Your task to perform on an android device: Do I have any events this weekend? Image 0: 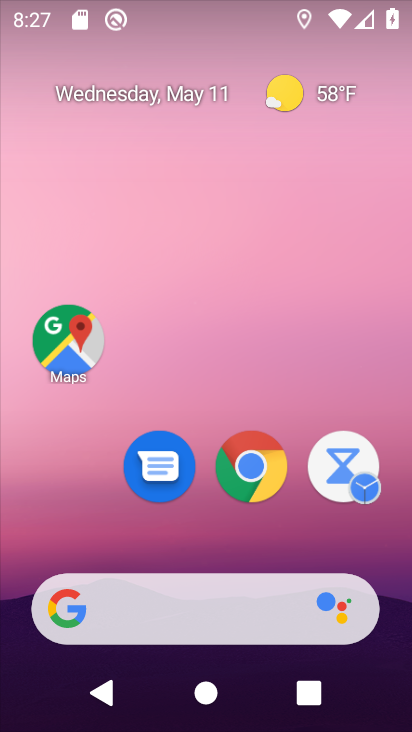
Step 0: drag from (305, 541) to (333, 15)
Your task to perform on an android device: Do I have any events this weekend? Image 1: 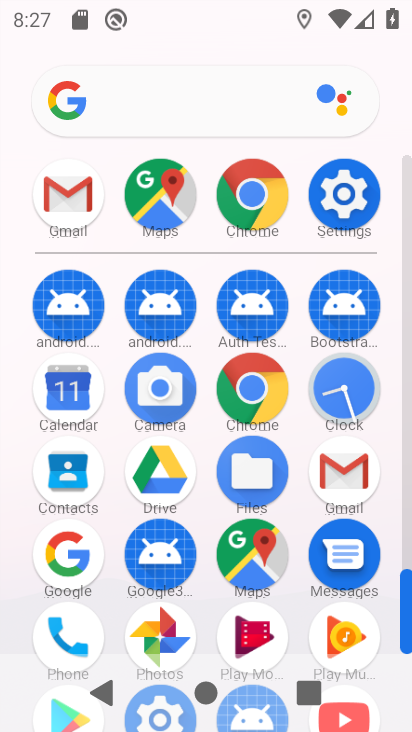
Step 1: click (227, 101)
Your task to perform on an android device: Do I have any events this weekend? Image 2: 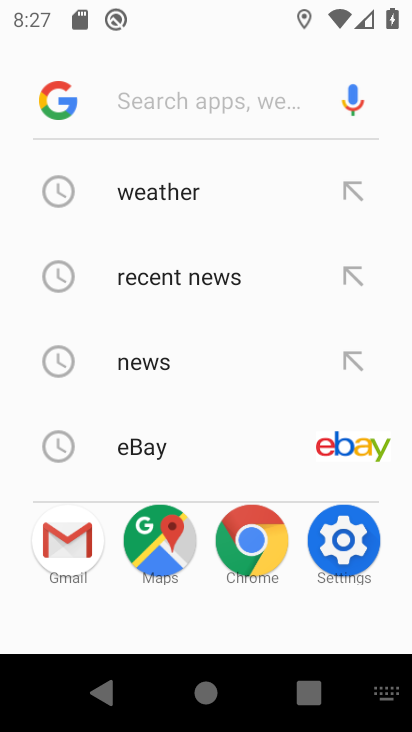
Step 2: press home button
Your task to perform on an android device: Do I have any events this weekend? Image 3: 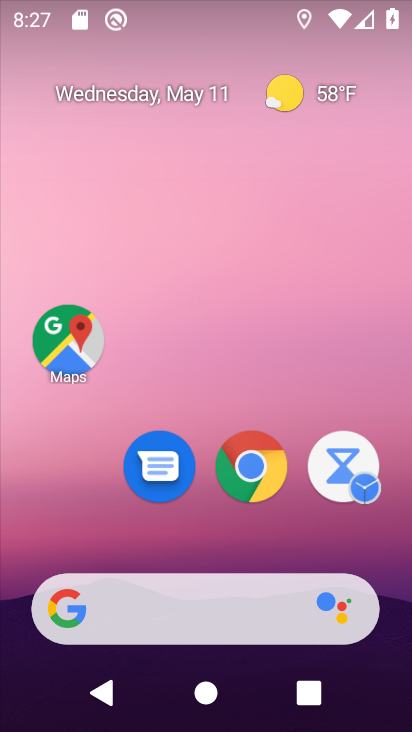
Step 3: drag from (212, 530) to (303, 43)
Your task to perform on an android device: Do I have any events this weekend? Image 4: 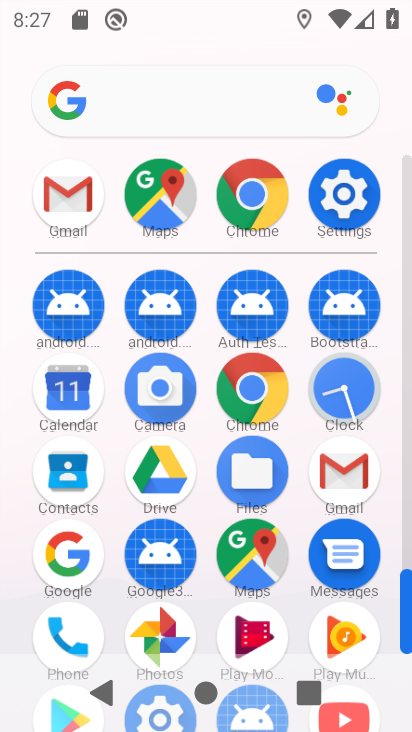
Step 4: click (75, 377)
Your task to perform on an android device: Do I have any events this weekend? Image 5: 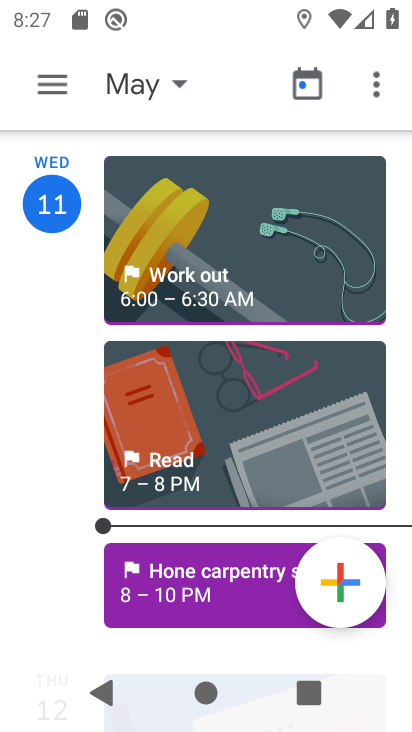
Step 5: click (149, 94)
Your task to perform on an android device: Do I have any events this weekend? Image 6: 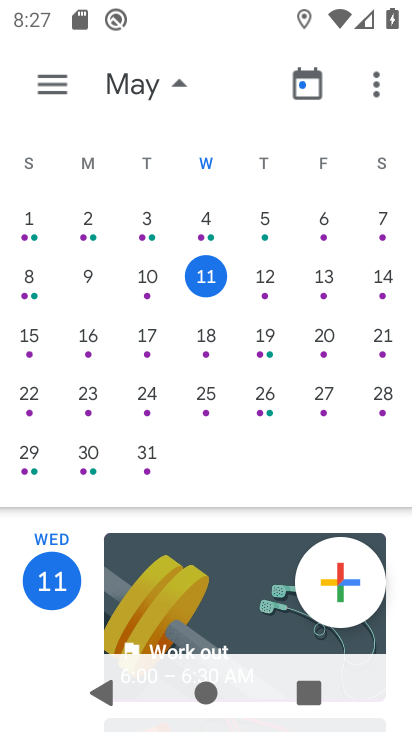
Step 6: click (379, 285)
Your task to perform on an android device: Do I have any events this weekend? Image 7: 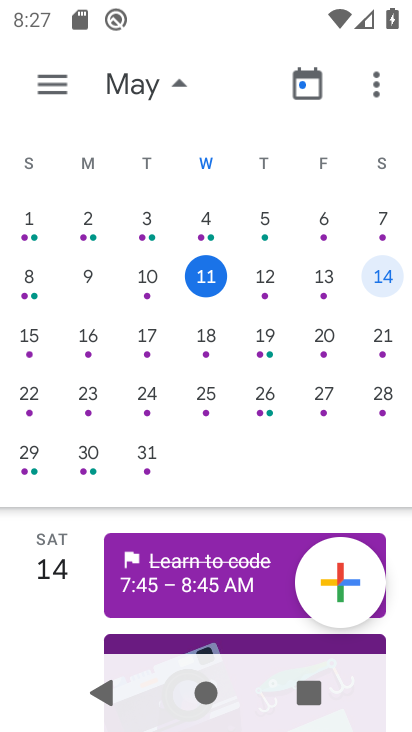
Step 7: task complete